Your task to perform on an android device: turn on data saver in the chrome app Image 0: 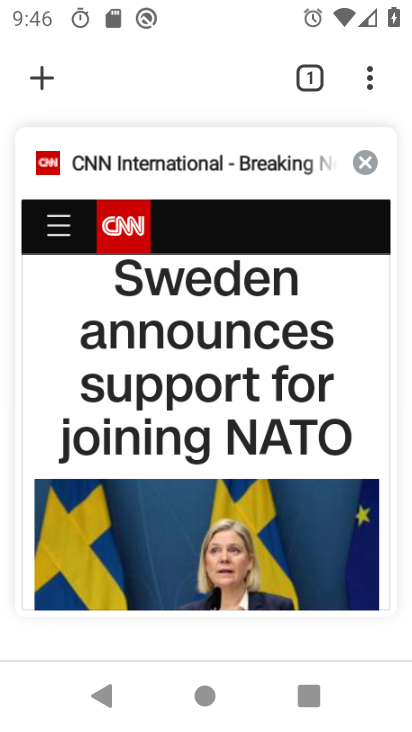
Step 0: press home button
Your task to perform on an android device: turn on data saver in the chrome app Image 1: 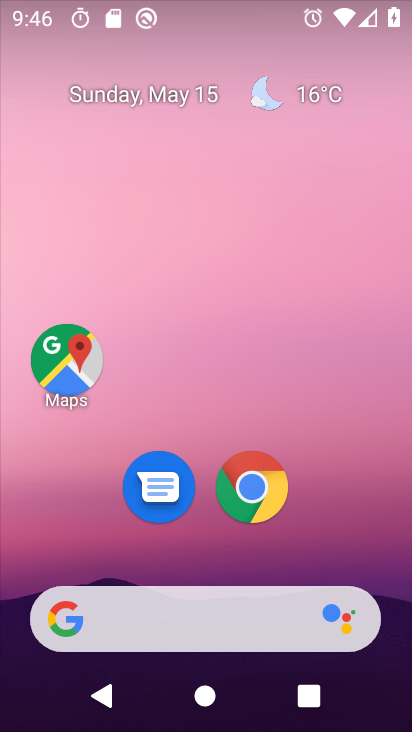
Step 1: drag from (388, 543) to (352, 148)
Your task to perform on an android device: turn on data saver in the chrome app Image 2: 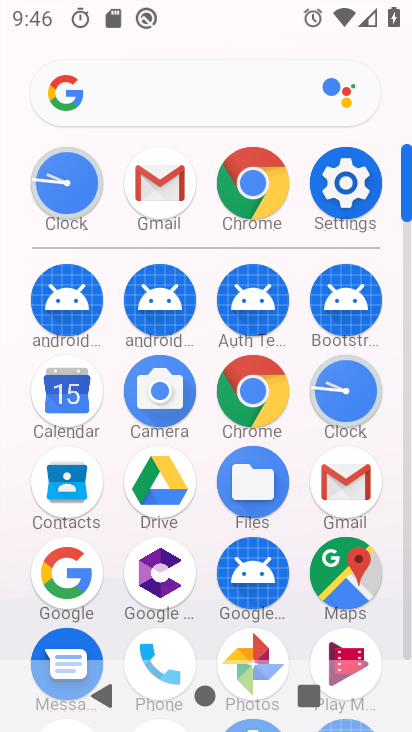
Step 2: click (247, 409)
Your task to perform on an android device: turn on data saver in the chrome app Image 3: 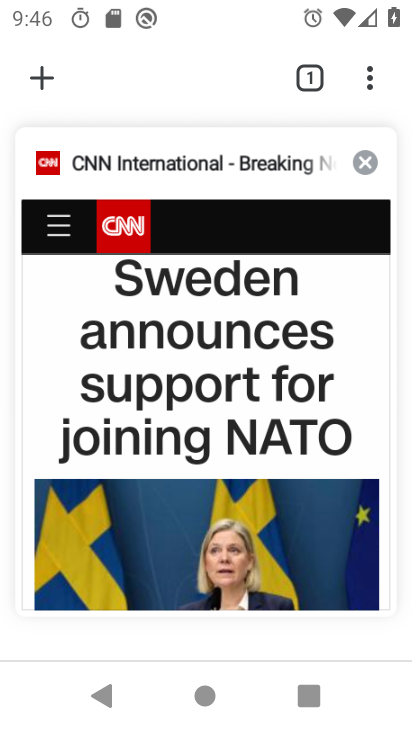
Step 3: drag from (378, 106) to (112, 315)
Your task to perform on an android device: turn on data saver in the chrome app Image 4: 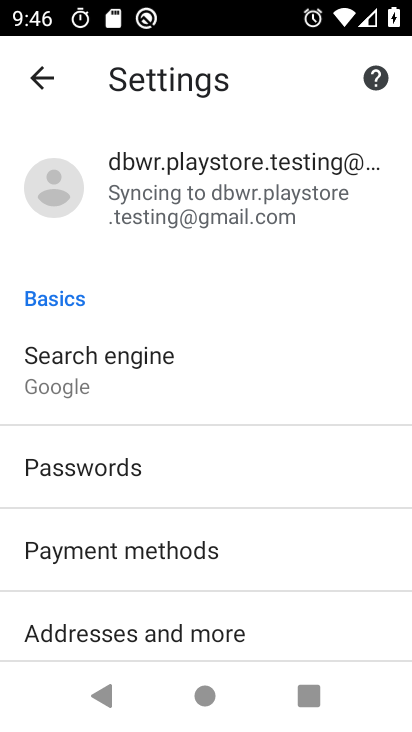
Step 4: drag from (309, 645) to (292, 273)
Your task to perform on an android device: turn on data saver in the chrome app Image 5: 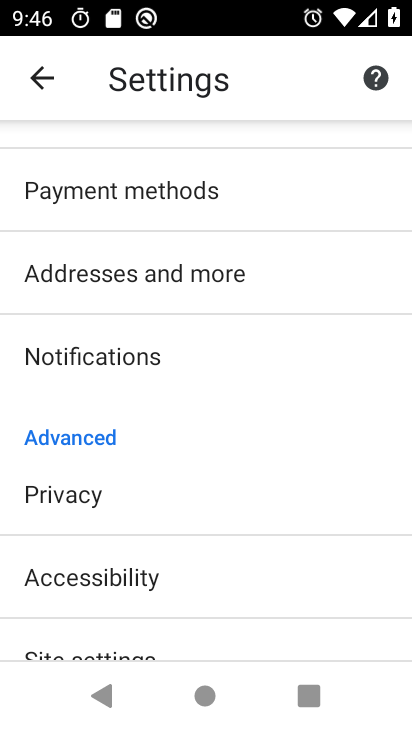
Step 5: drag from (302, 635) to (283, 297)
Your task to perform on an android device: turn on data saver in the chrome app Image 6: 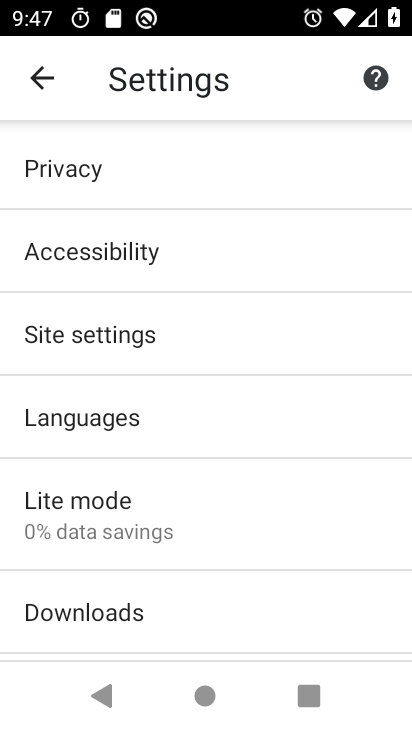
Step 6: click (130, 523)
Your task to perform on an android device: turn on data saver in the chrome app Image 7: 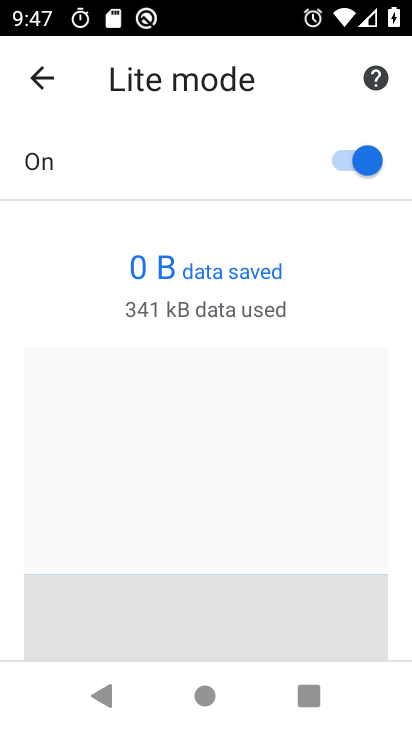
Step 7: task complete